Your task to perform on an android device: Go to Maps Image 0: 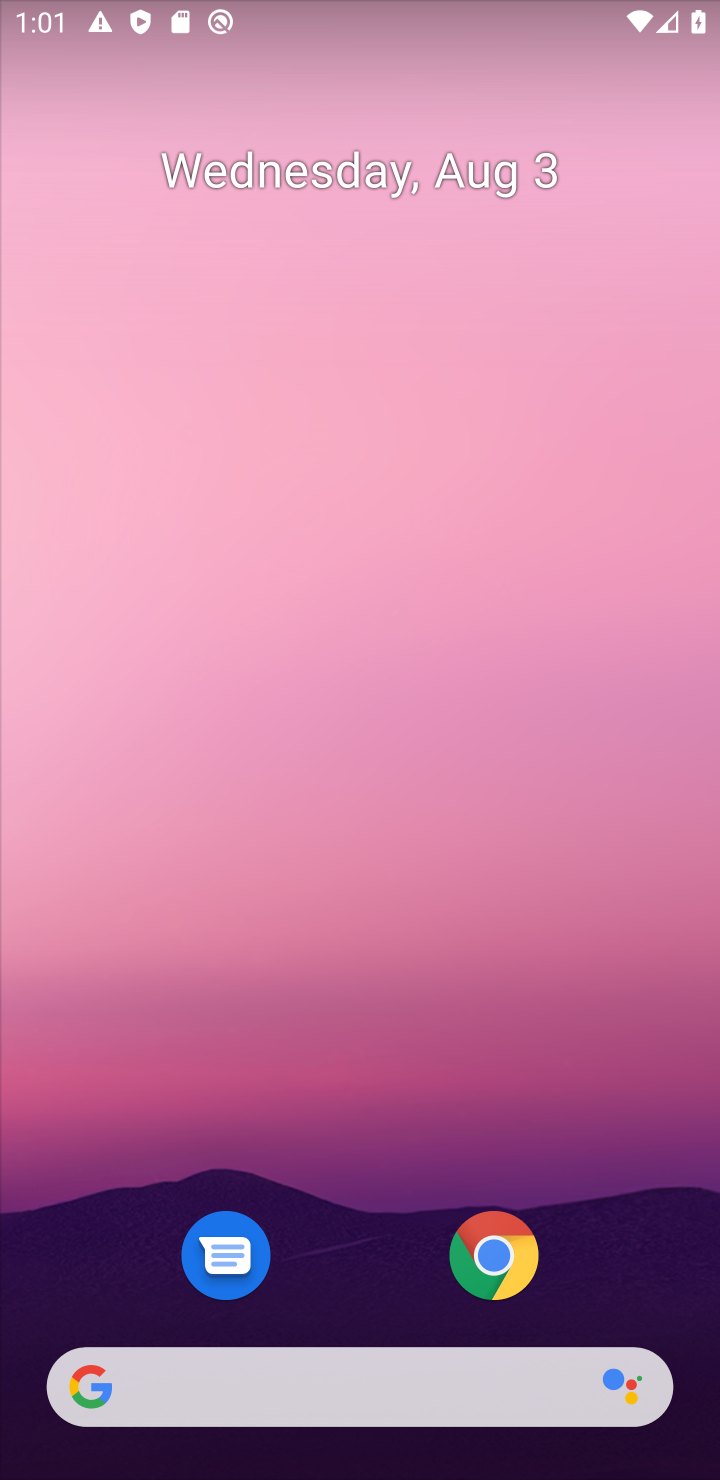
Step 0: drag from (616, 1259) to (578, 332)
Your task to perform on an android device: Go to Maps Image 1: 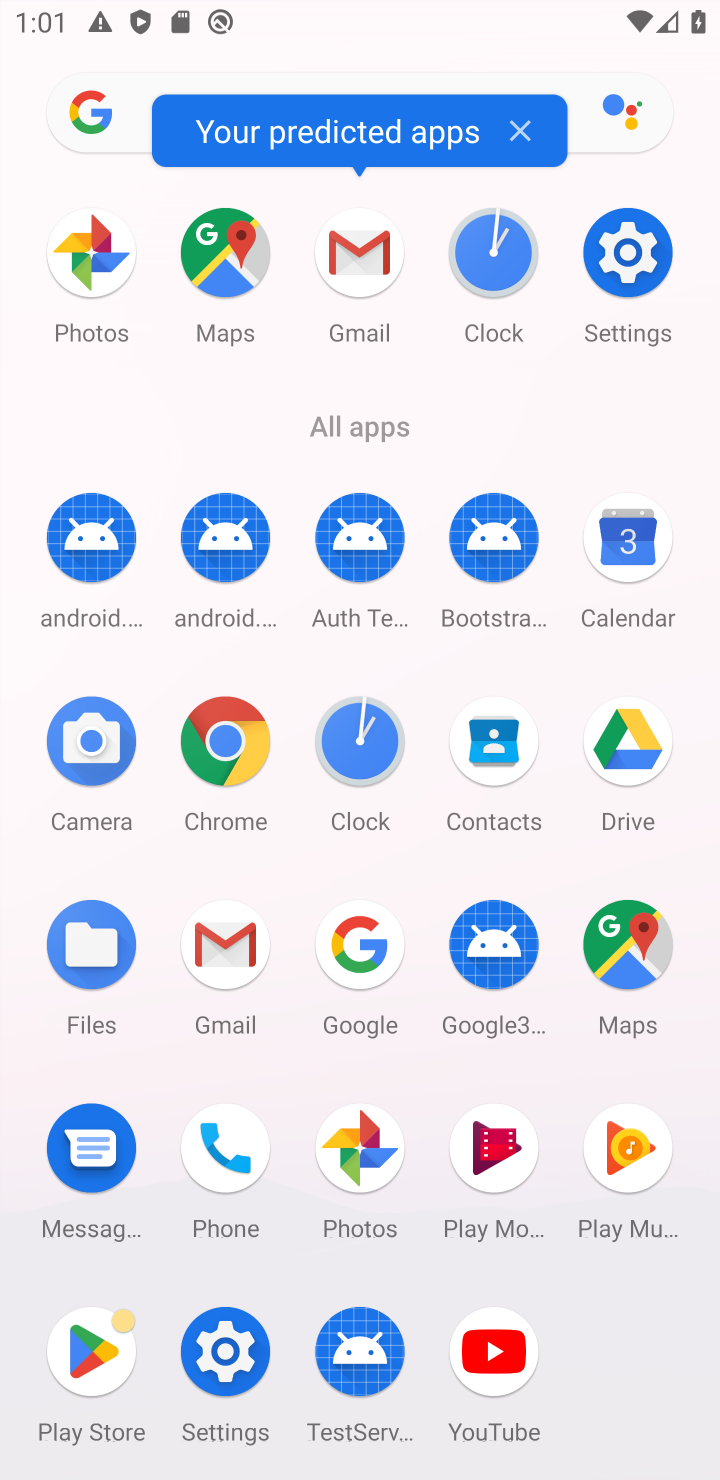
Step 1: click (227, 303)
Your task to perform on an android device: Go to Maps Image 2: 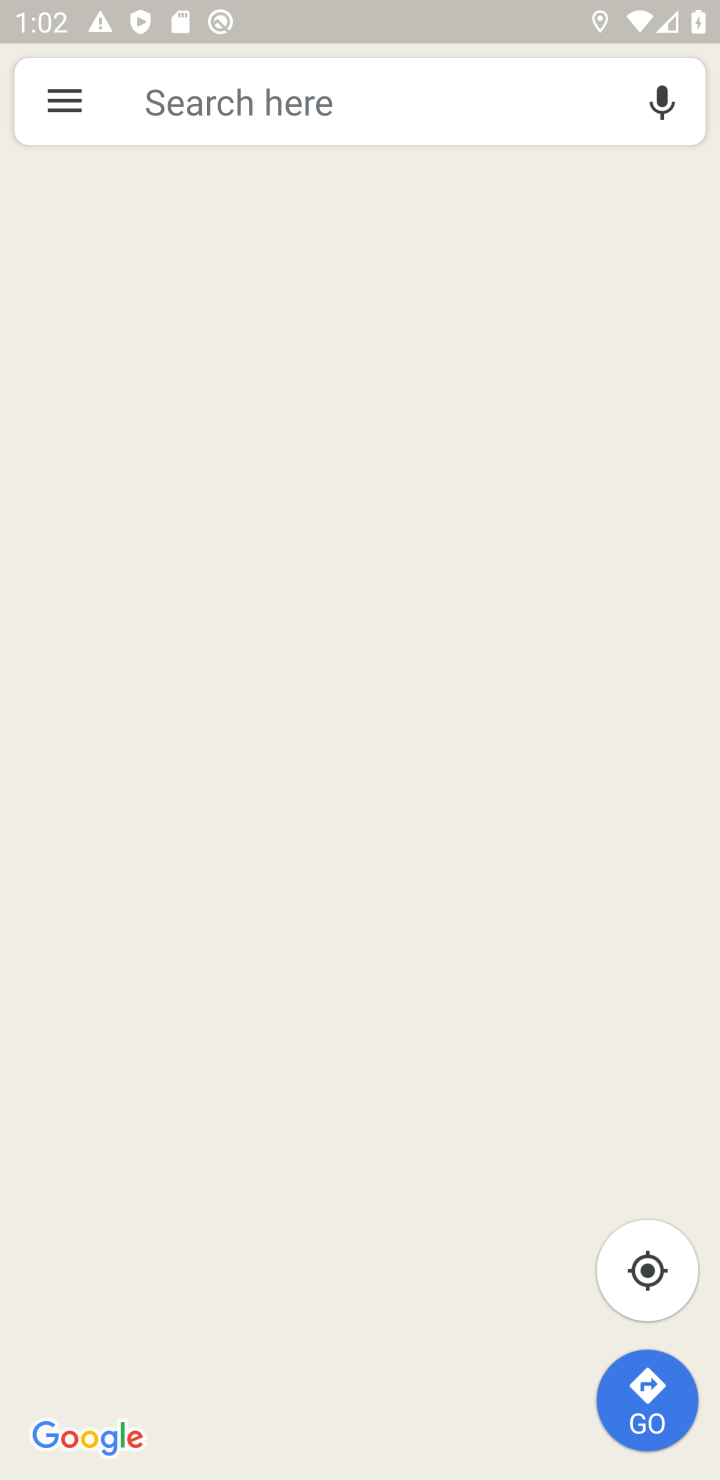
Step 2: task complete